Your task to perform on an android device: all mails in gmail Image 0: 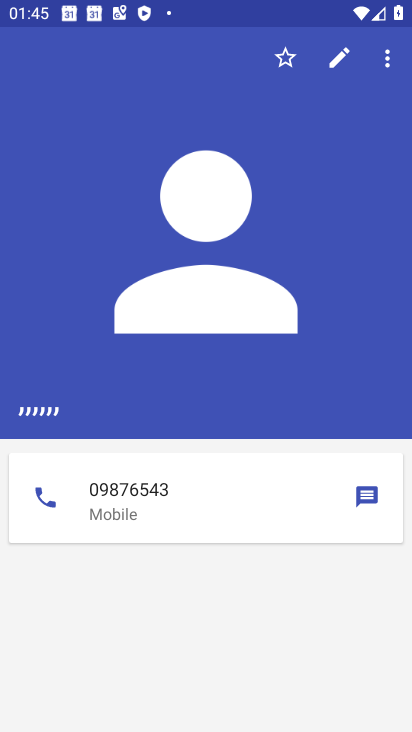
Step 0: press home button
Your task to perform on an android device: all mails in gmail Image 1: 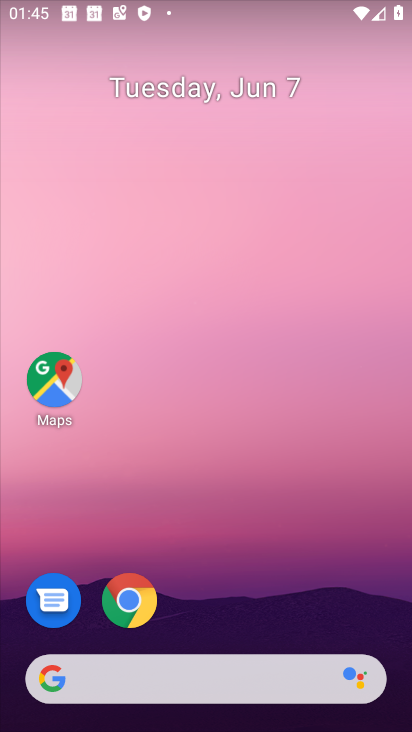
Step 1: drag from (212, 716) to (213, 106)
Your task to perform on an android device: all mails in gmail Image 2: 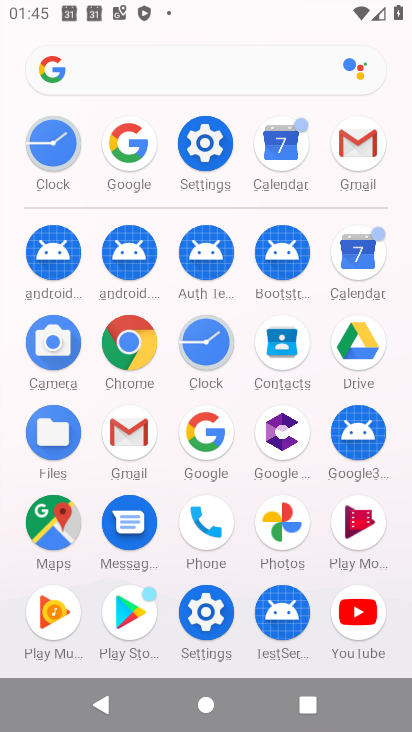
Step 2: click (132, 435)
Your task to perform on an android device: all mails in gmail Image 3: 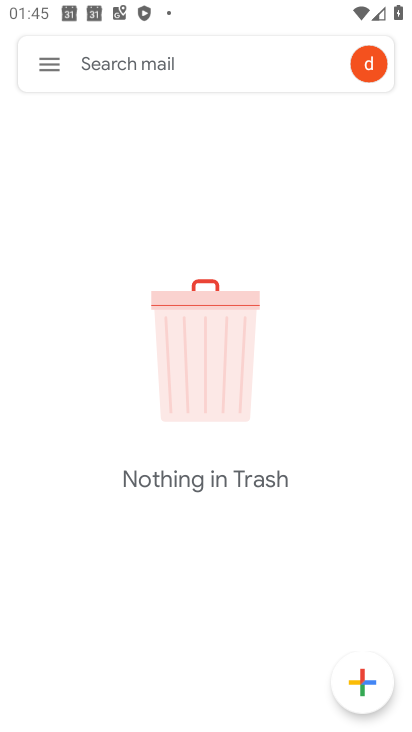
Step 3: click (48, 67)
Your task to perform on an android device: all mails in gmail Image 4: 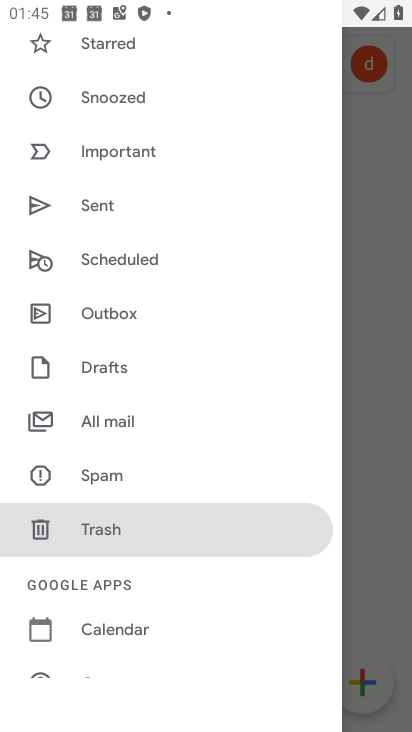
Step 4: click (110, 418)
Your task to perform on an android device: all mails in gmail Image 5: 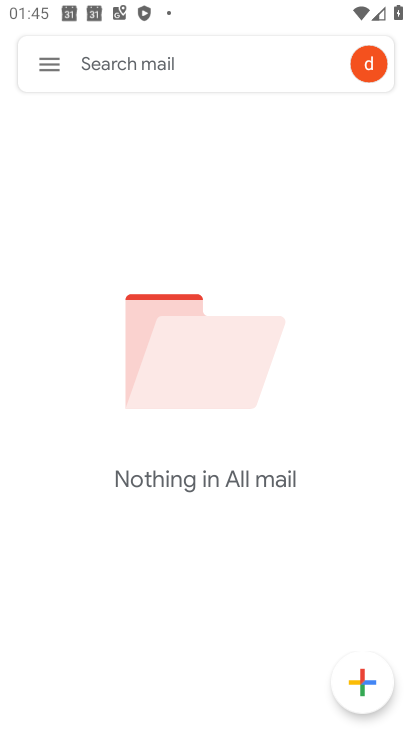
Step 5: task complete